Your task to perform on an android device: Open the web browser Image 0: 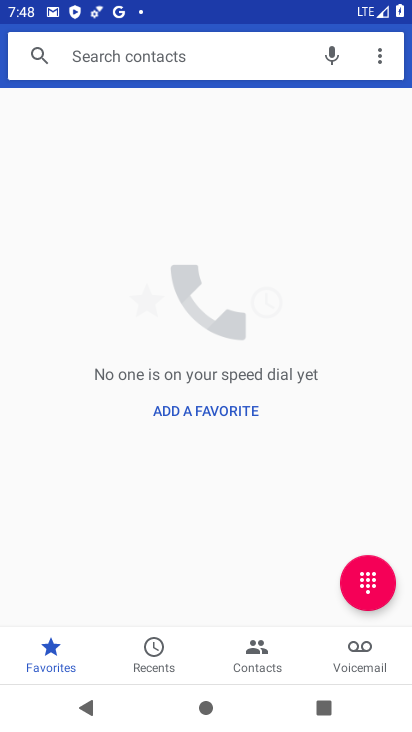
Step 0: press home button
Your task to perform on an android device: Open the web browser Image 1: 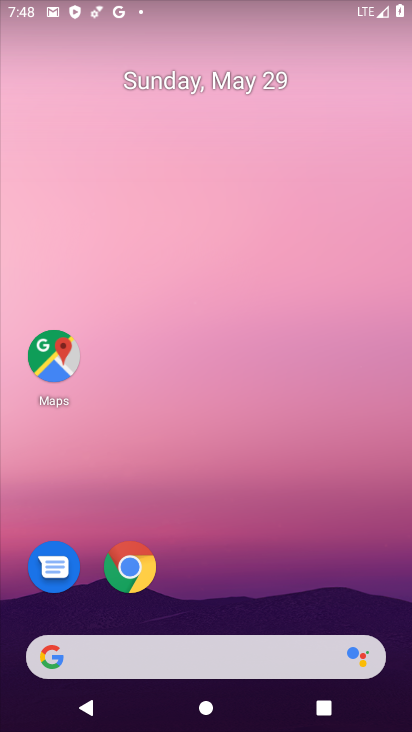
Step 1: click (129, 571)
Your task to perform on an android device: Open the web browser Image 2: 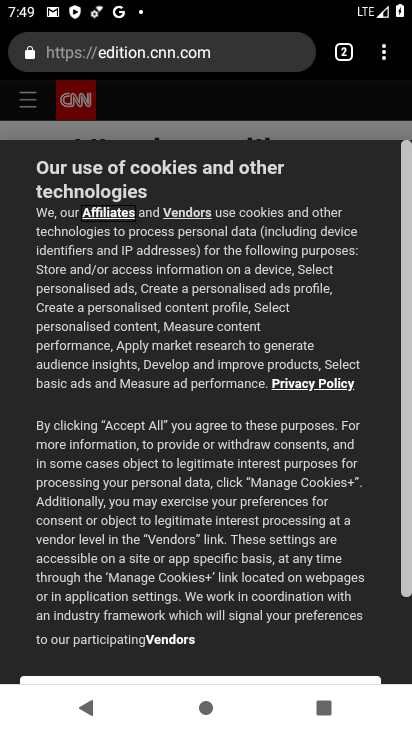
Step 2: task complete